Your task to perform on an android device: Open CNN.com Image 0: 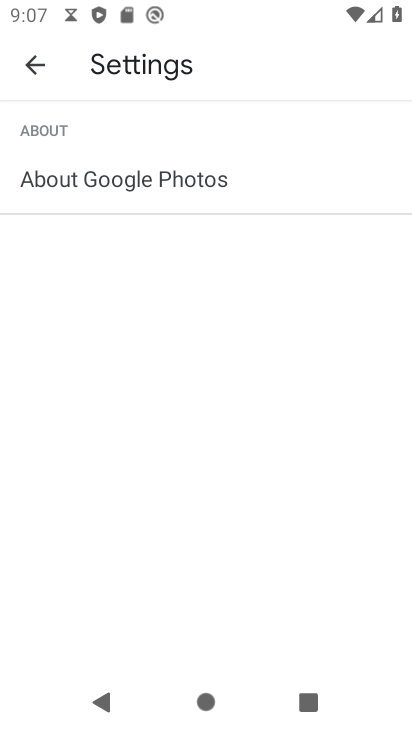
Step 0: press back button
Your task to perform on an android device: Open CNN.com Image 1: 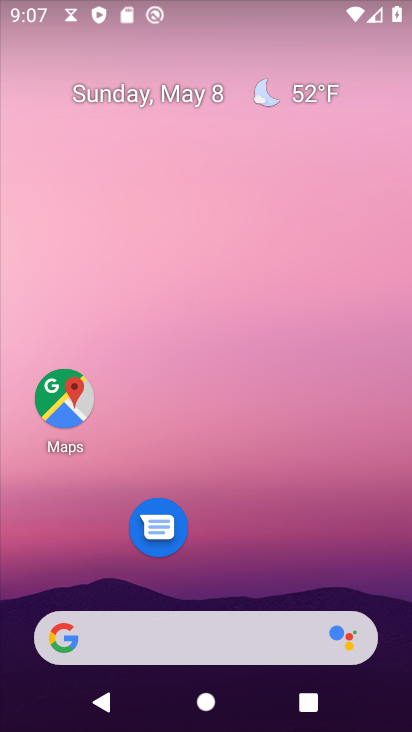
Step 1: drag from (224, 515) to (275, 55)
Your task to perform on an android device: Open CNN.com Image 2: 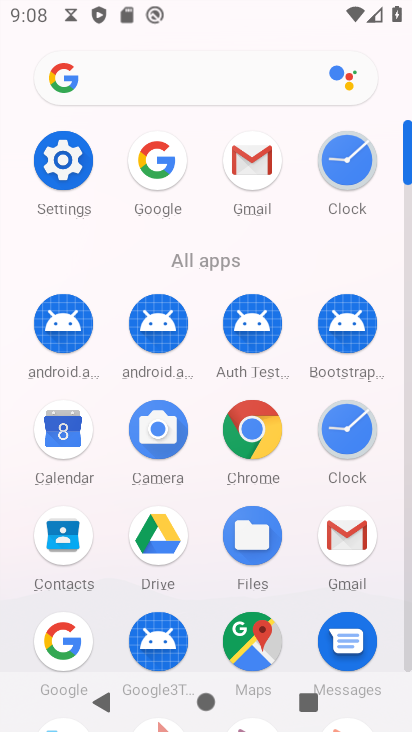
Step 2: click (252, 431)
Your task to perform on an android device: Open CNN.com Image 3: 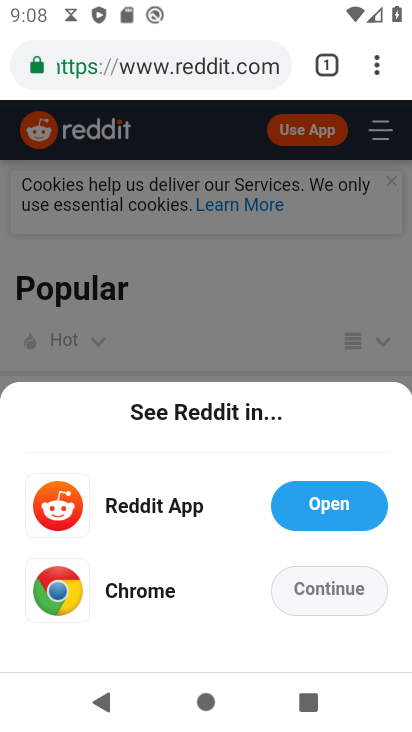
Step 3: click (255, 64)
Your task to perform on an android device: Open CNN.com Image 4: 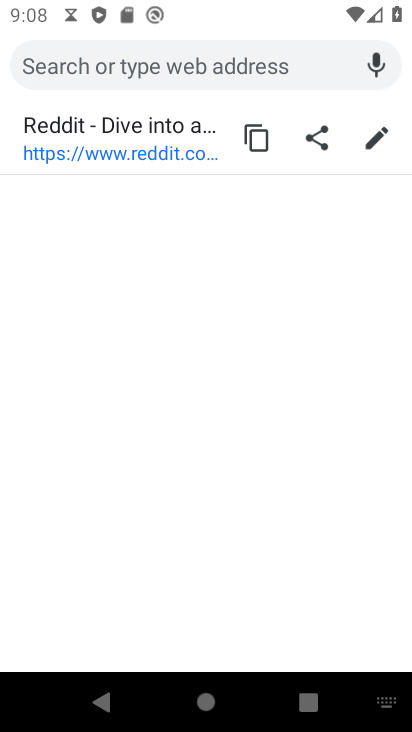
Step 4: type "CNN.com"
Your task to perform on an android device: Open CNN.com Image 5: 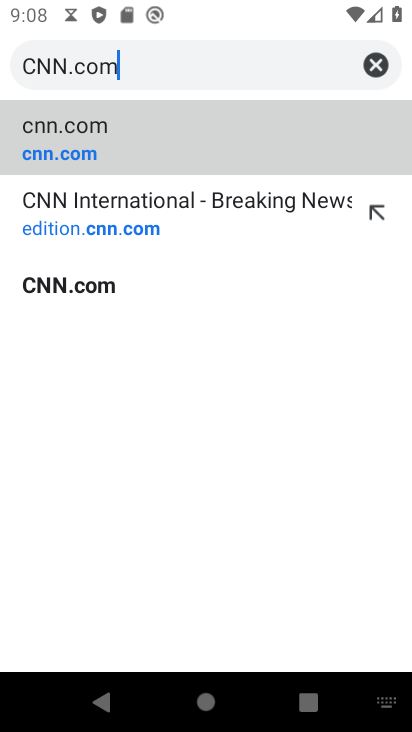
Step 5: type ""
Your task to perform on an android device: Open CNN.com Image 6: 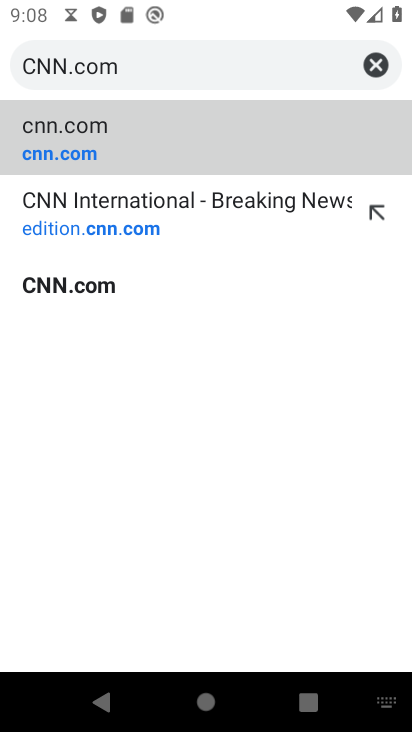
Step 6: click (63, 282)
Your task to perform on an android device: Open CNN.com Image 7: 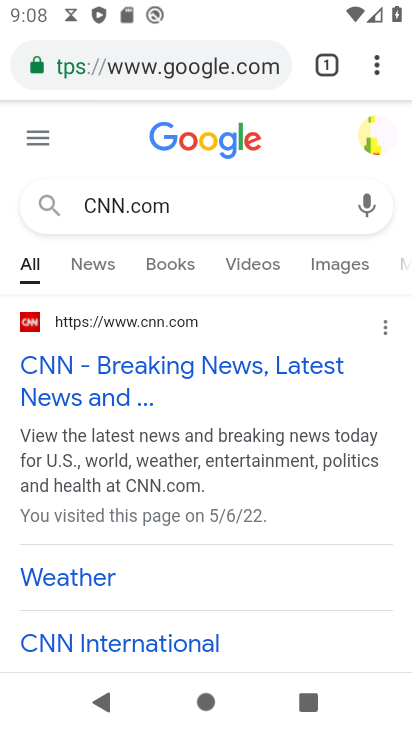
Step 7: click (90, 386)
Your task to perform on an android device: Open CNN.com Image 8: 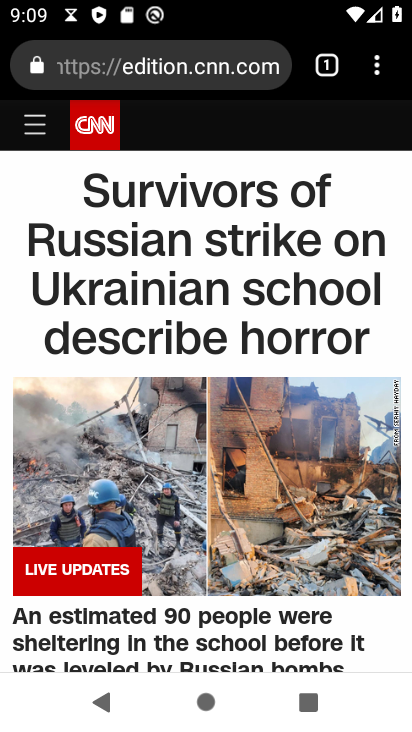
Step 8: task complete